Your task to perform on an android device: Add beats solo 3 to the cart on bestbuy.com Image 0: 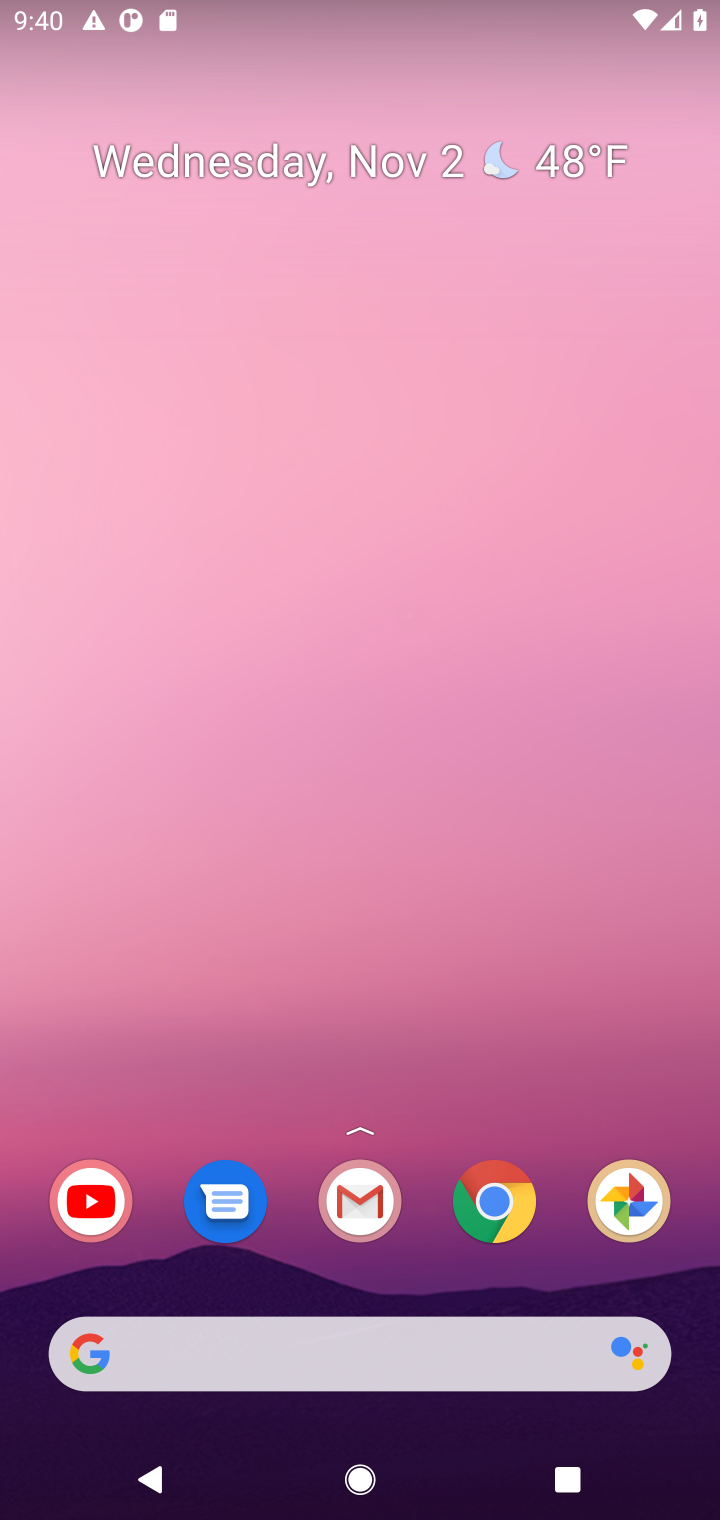
Step 0: drag from (418, 1250) to (548, 458)
Your task to perform on an android device: Add beats solo 3 to the cart on bestbuy.com Image 1: 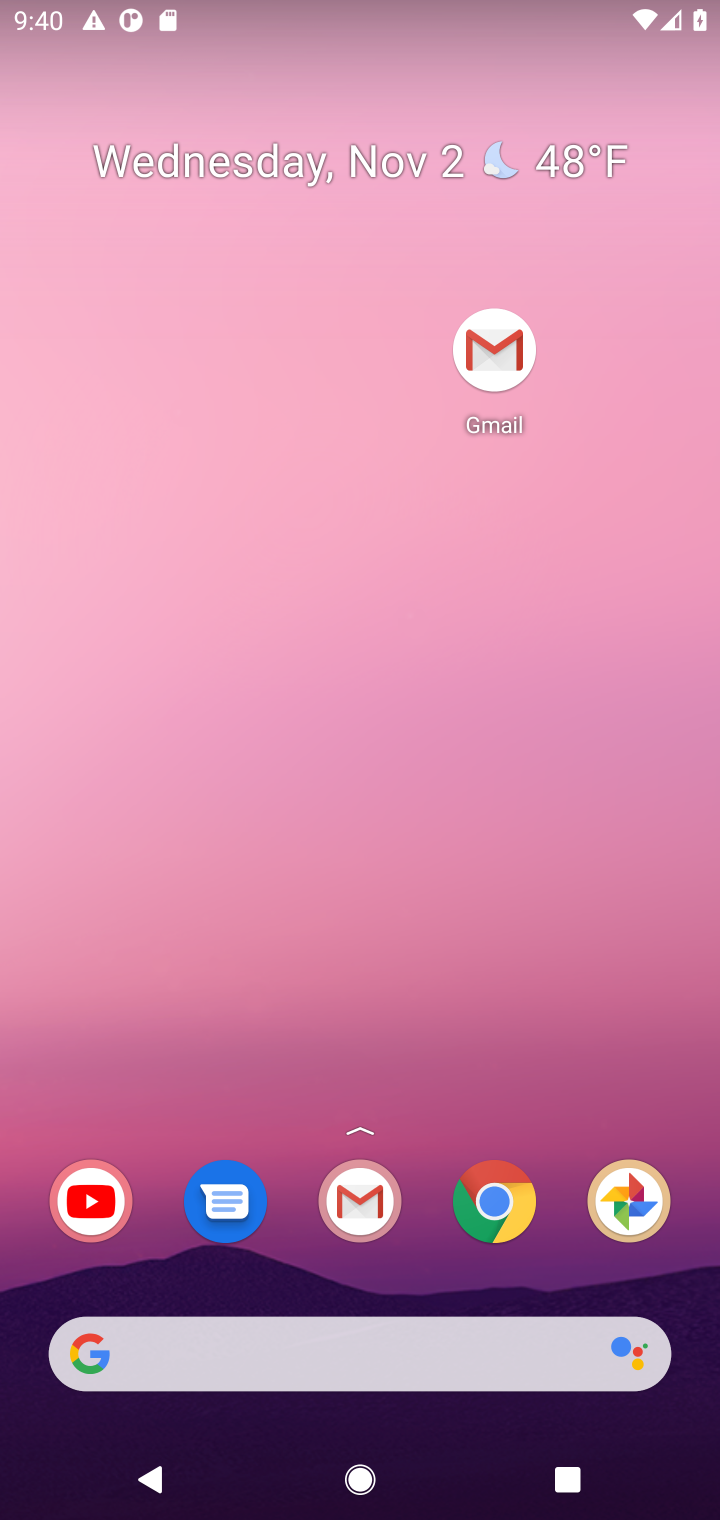
Step 1: drag from (423, 1252) to (350, 292)
Your task to perform on an android device: Add beats solo 3 to the cart on bestbuy.com Image 2: 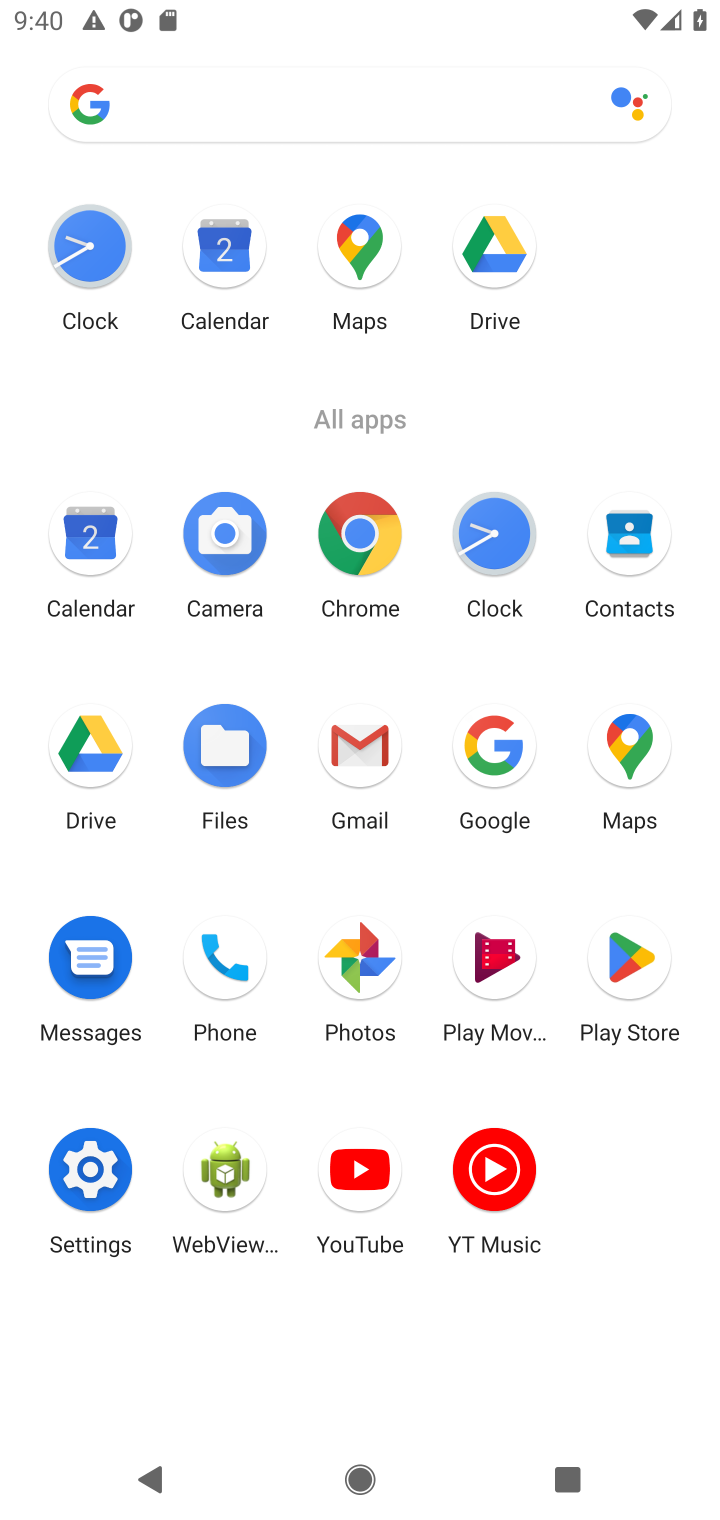
Step 2: click (360, 541)
Your task to perform on an android device: Add beats solo 3 to the cart on bestbuy.com Image 3: 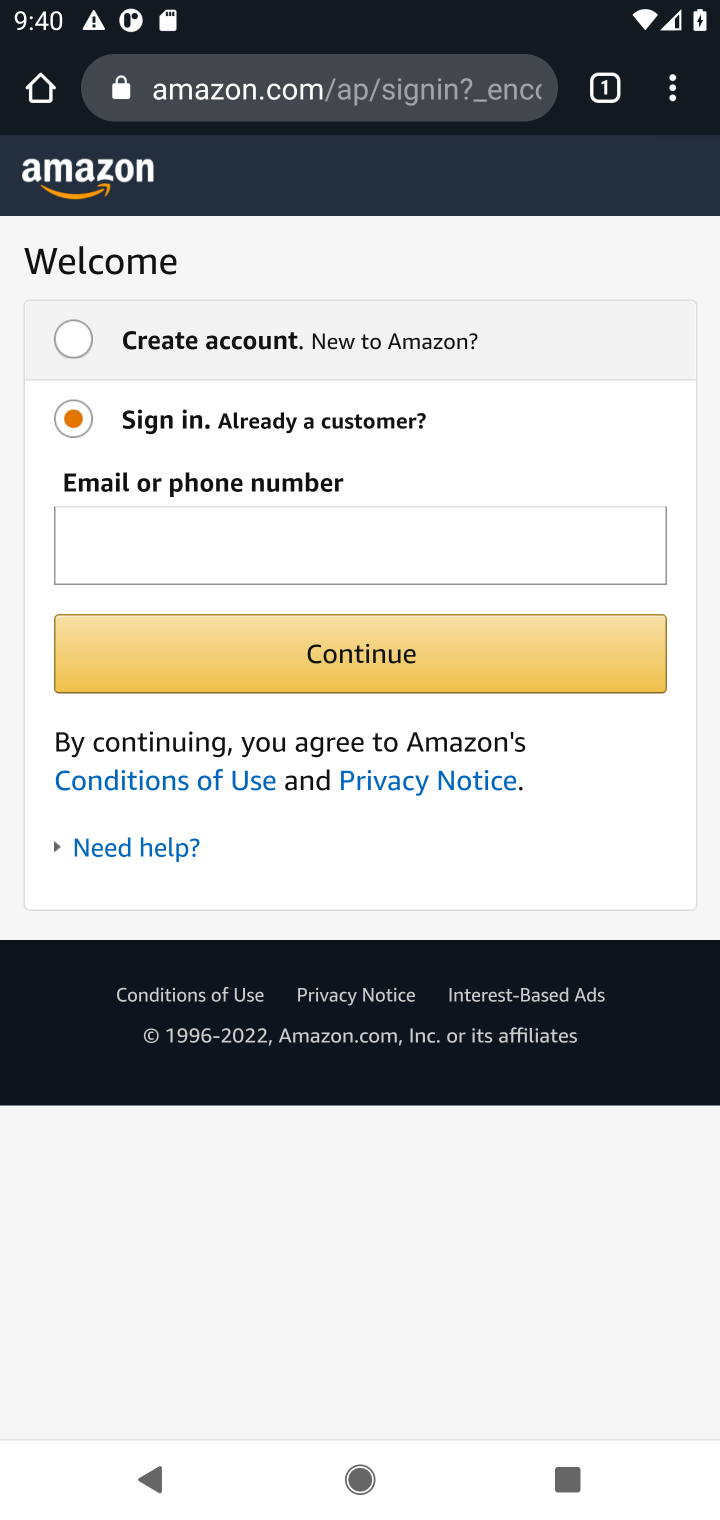
Step 3: click (314, 104)
Your task to perform on an android device: Add beats solo 3 to the cart on bestbuy.com Image 4: 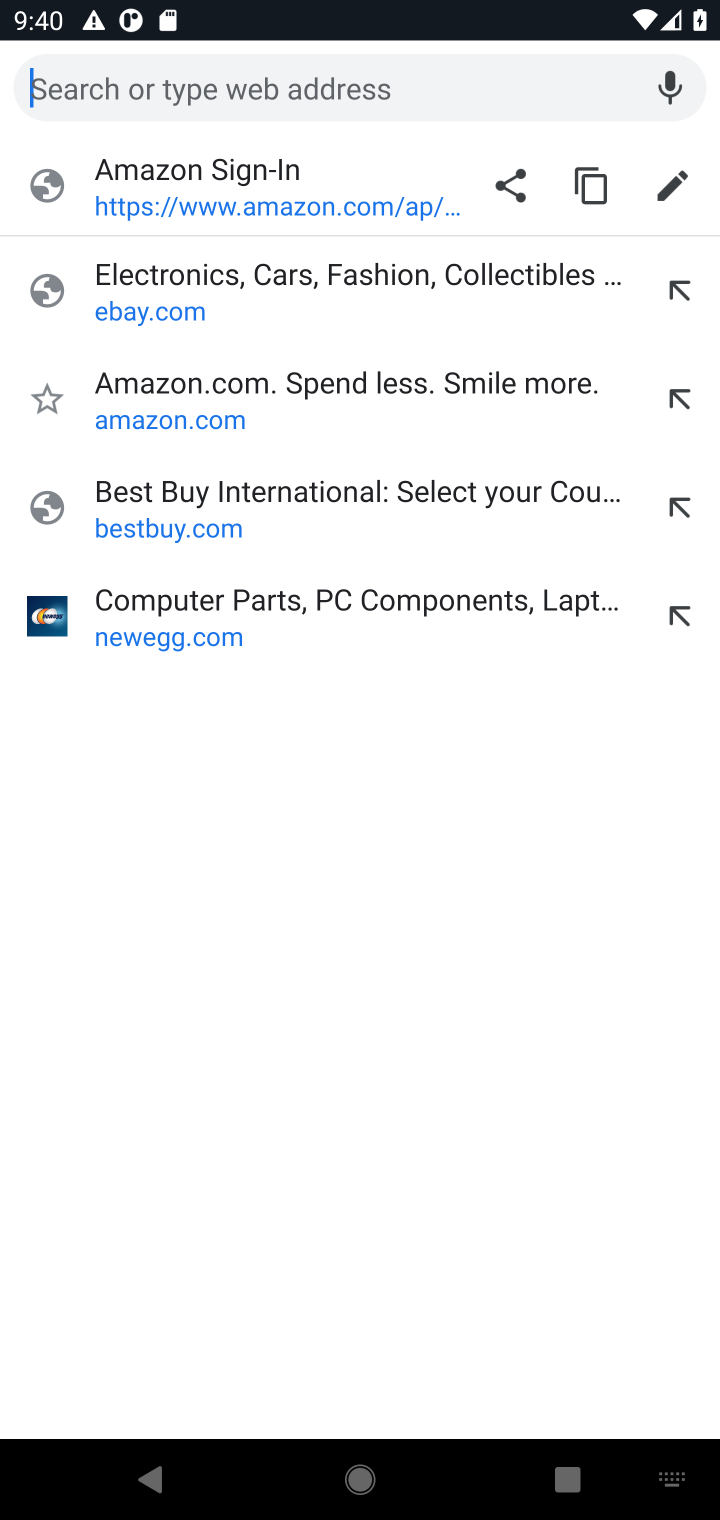
Step 4: type ""
Your task to perform on an android device: Add beats solo 3 to the cart on bestbuy.com Image 5: 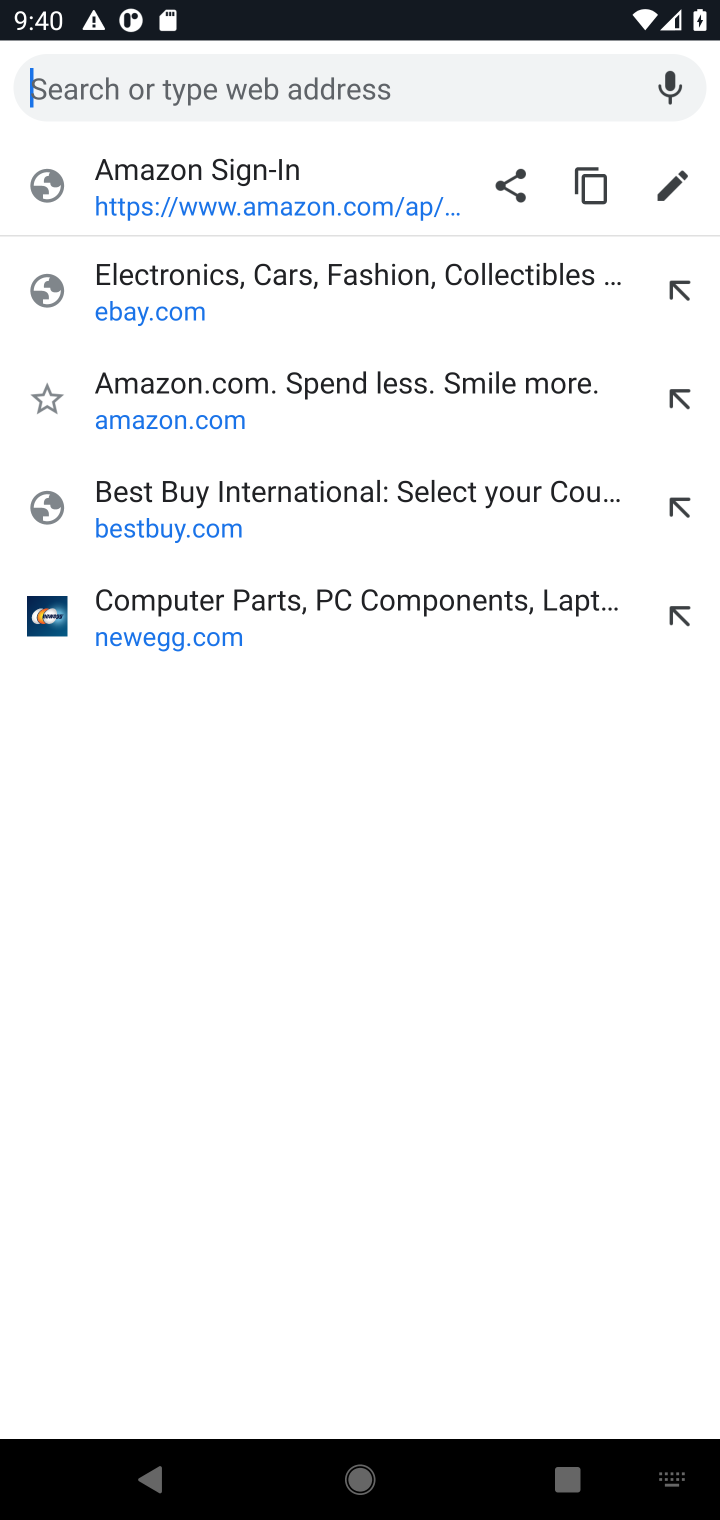
Step 5: type "bestbuy.com"
Your task to perform on an android device: Add beats solo 3 to the cart on bestbuy.com Image 6: 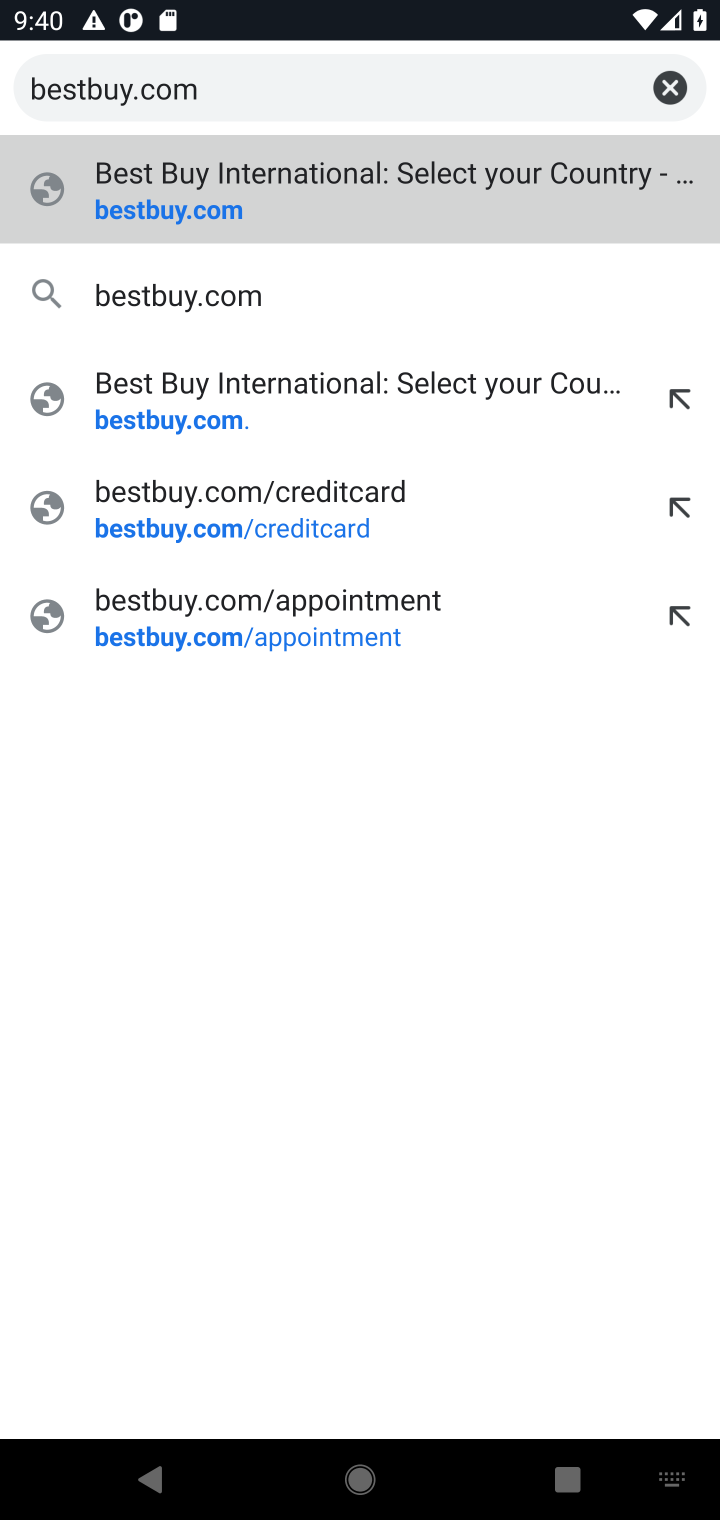
Step 6: press enter
Your task to perform on an android device: Add beats solo 3 to the cart on bestbuy.com Image 7: 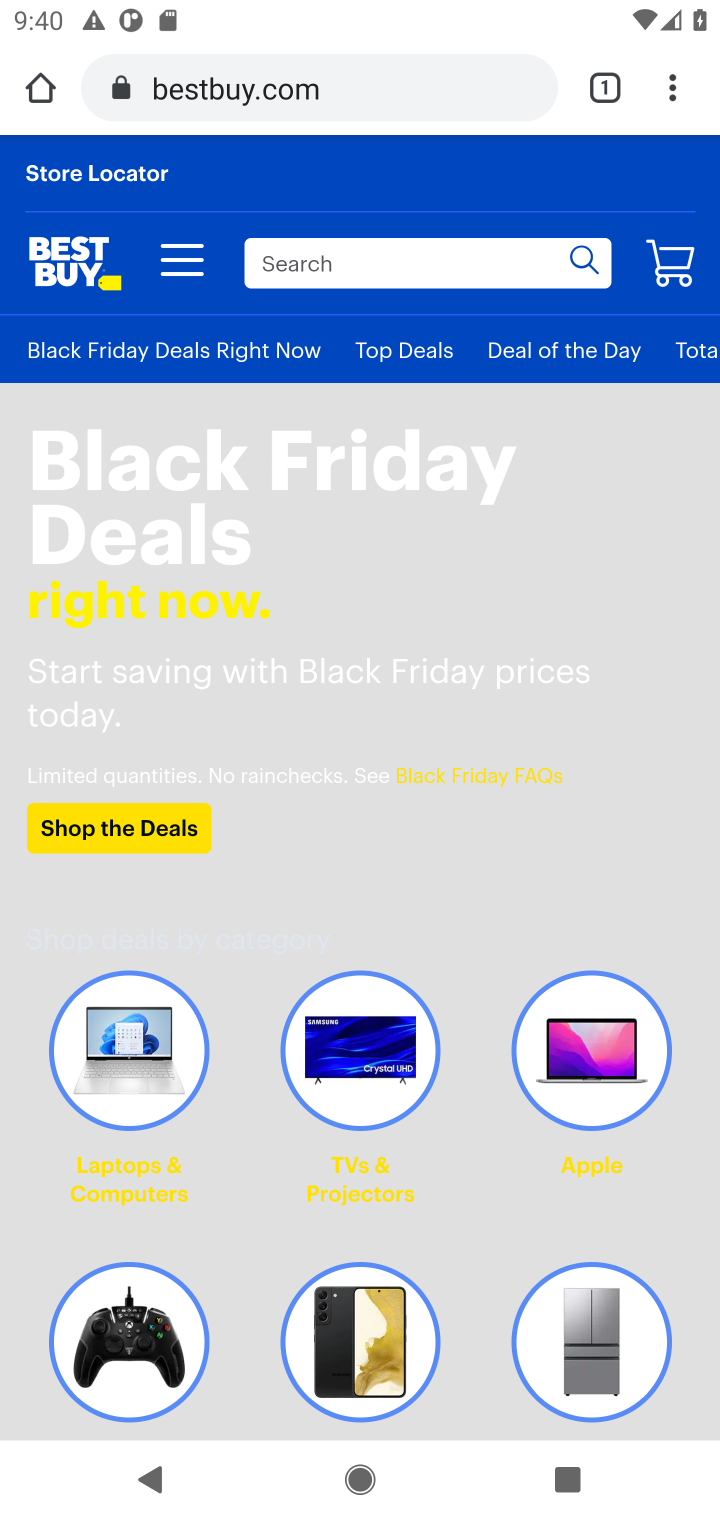
Step 7: click (507, 271)
Your task to perform on an android device: Add beats solo 3 to the cart on bestbuy.com Image 8: 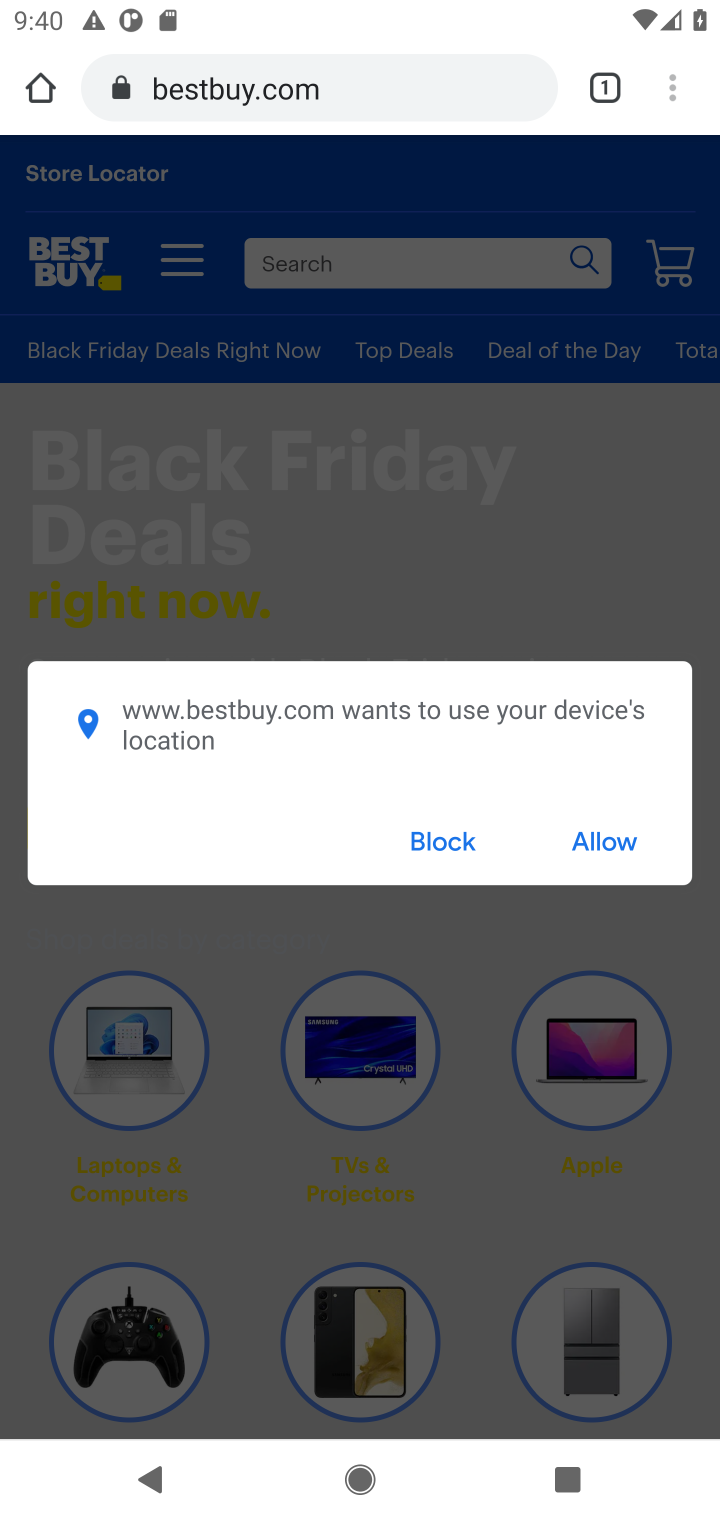
Step 8: click (409, 848)
Your task to perform on an android device: Add beats solo 3 to the cart on bestbuy.com Image 9: 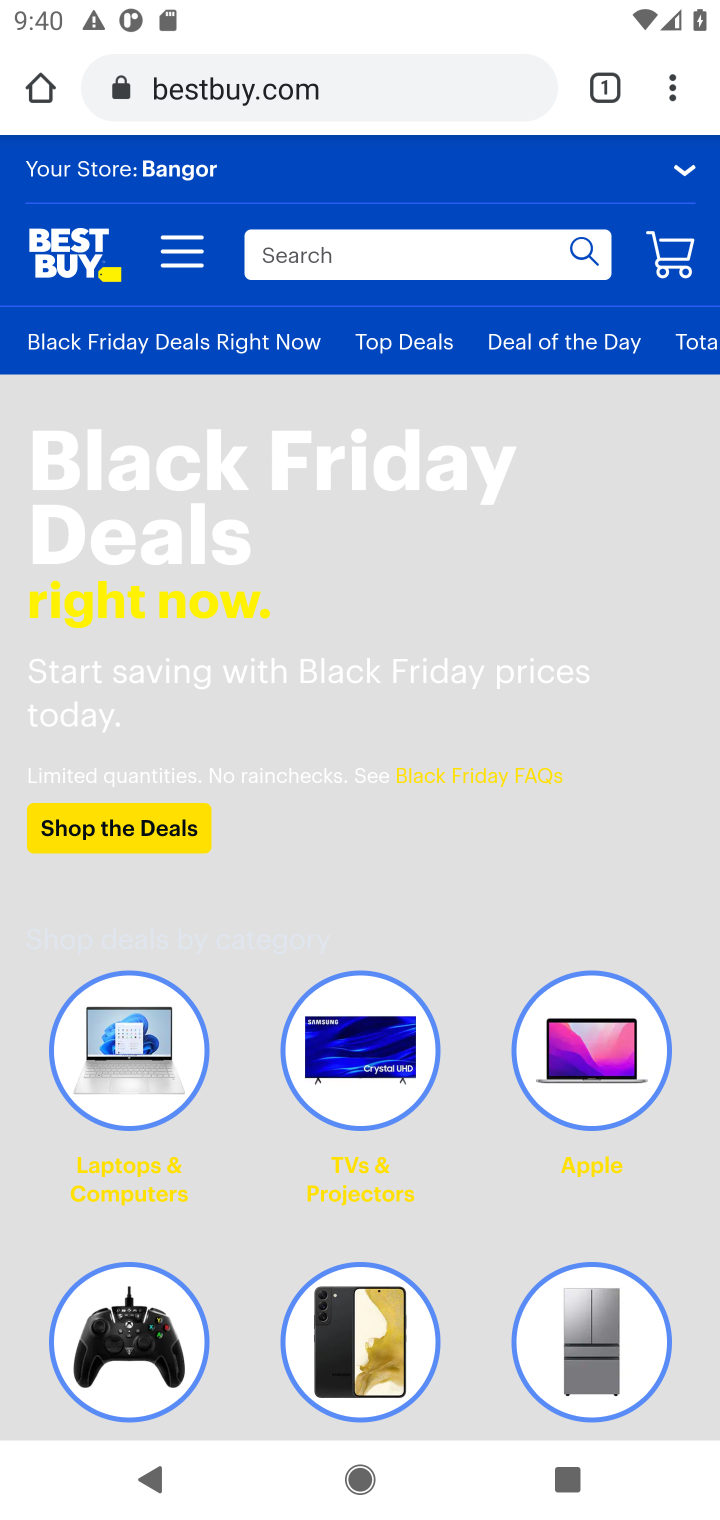
Step 9: click (361, 248)
Your task to perform on an android device: Add beats solo 3 to the cart on bestbuy.com Image 10: 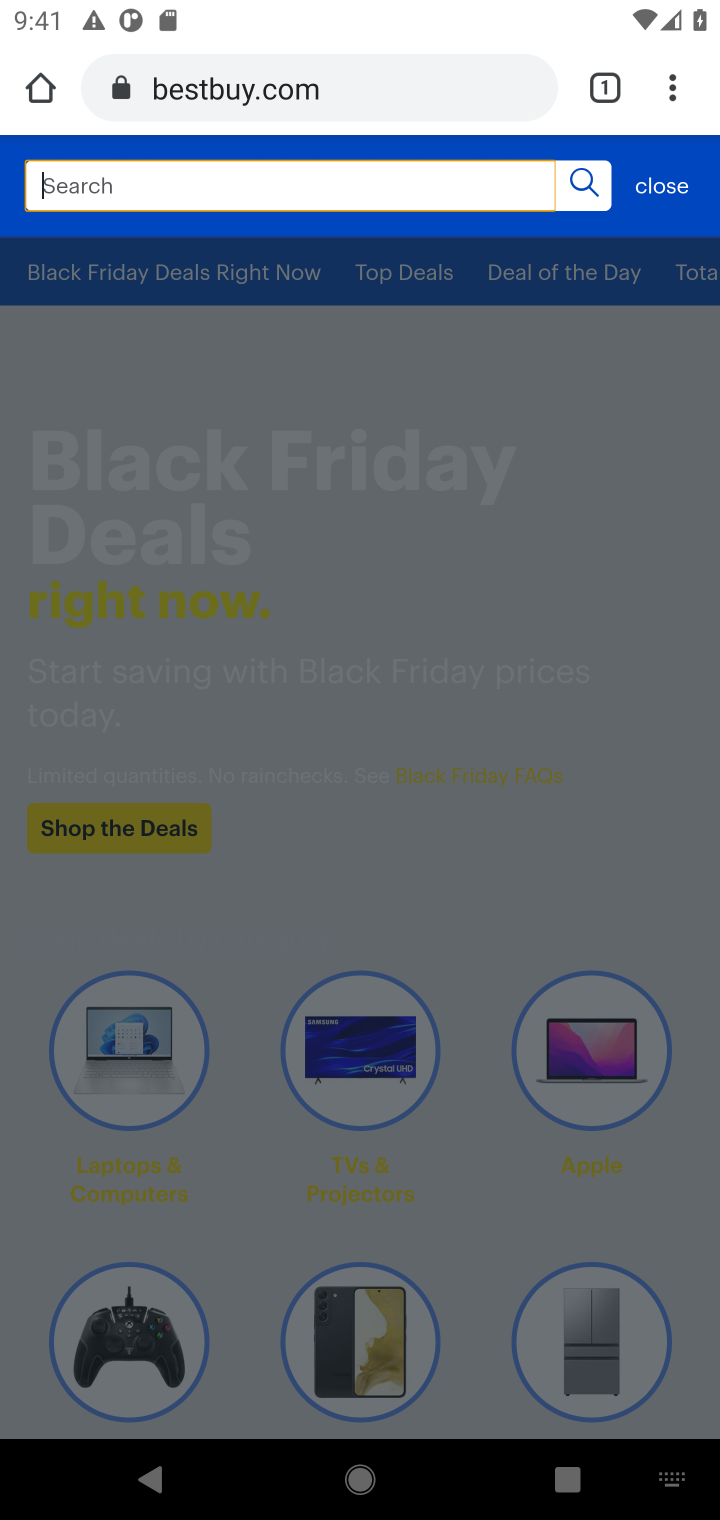
Step 10: type "beats  solo 3"
Your task to perform on an android device: Add beats solo 3 to the cart on bestbuy.com Image 11: 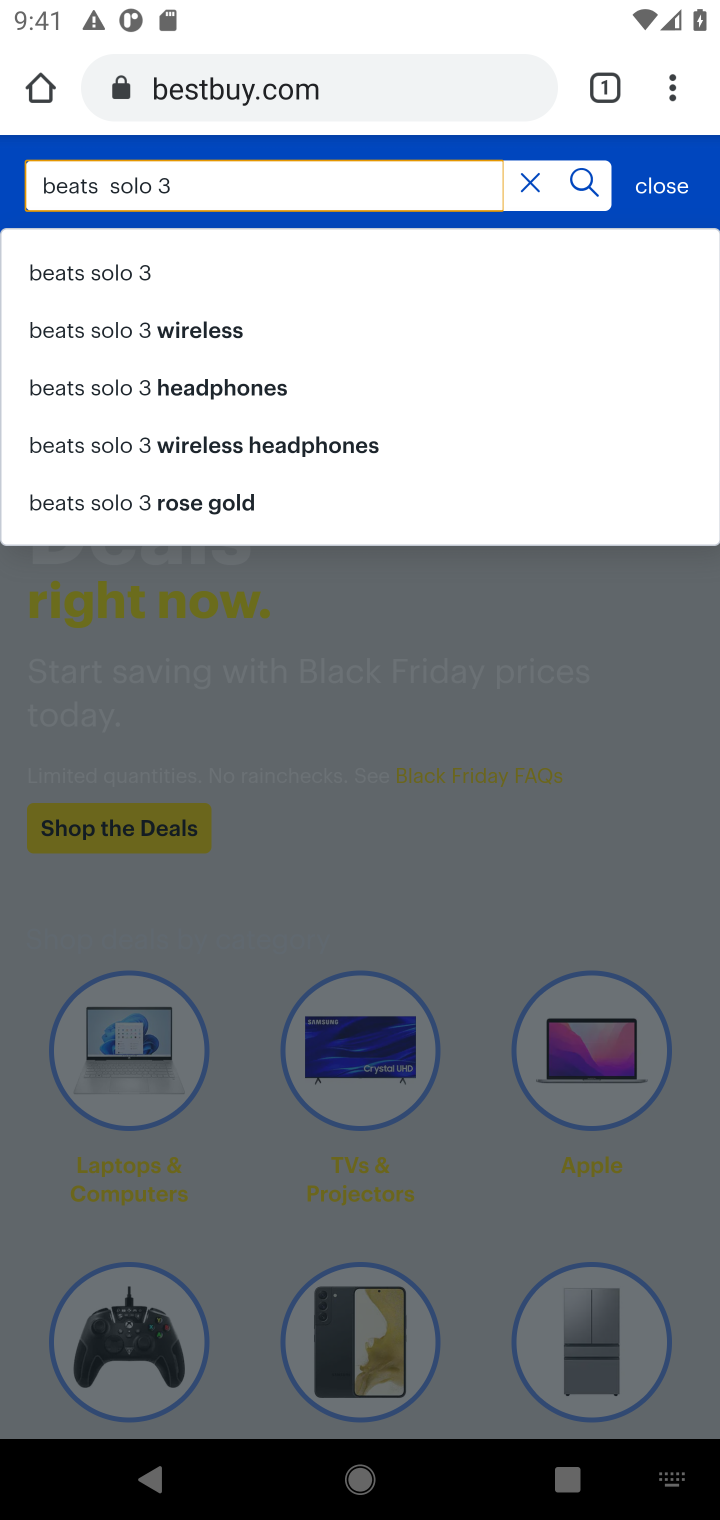
Step 11: press enter
Your task to perform on an android device: Add beats solo 3 to the cart on bestbuy.com Image 12: 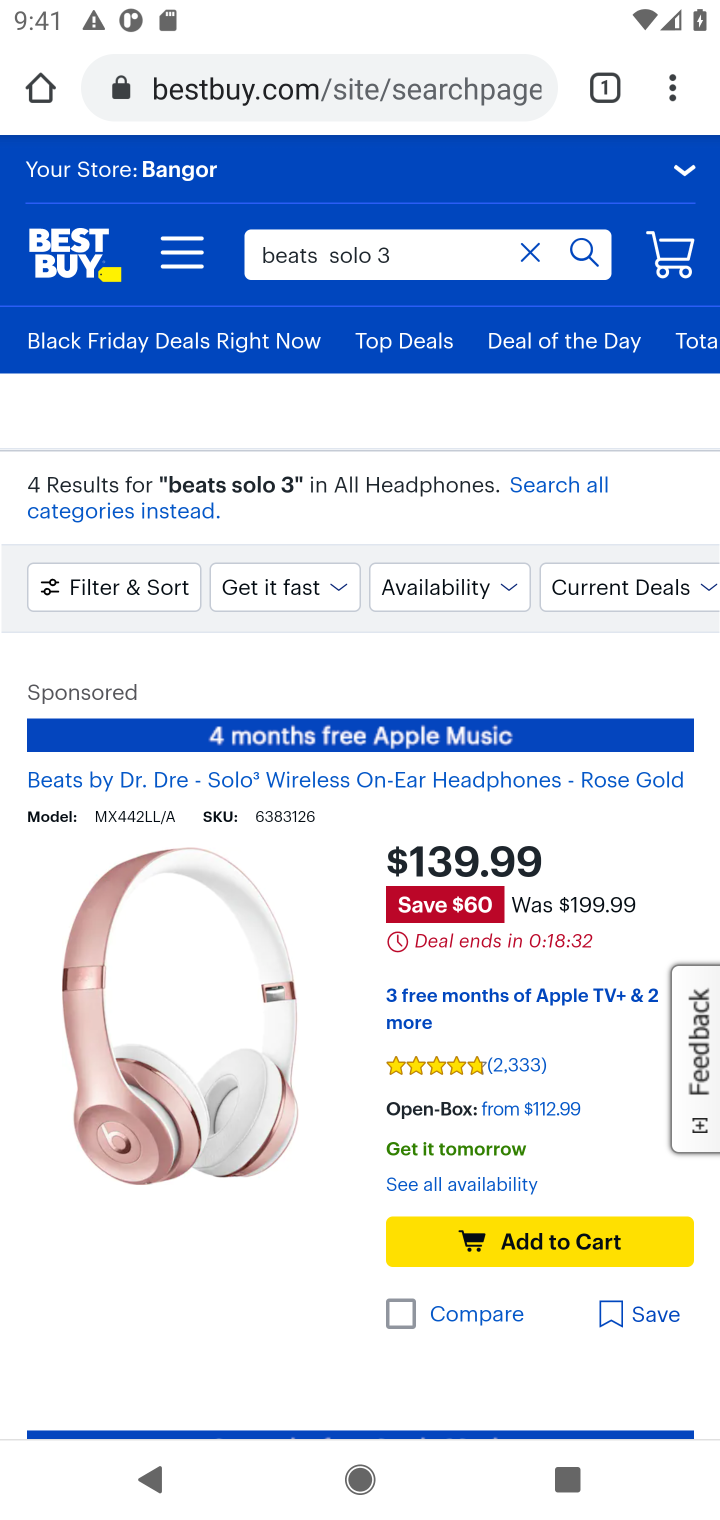
Step 12: click (533, 1245)
Your task to perform on an android device: Add beats solo 3 to the cart on bestbuy.com Image 13: 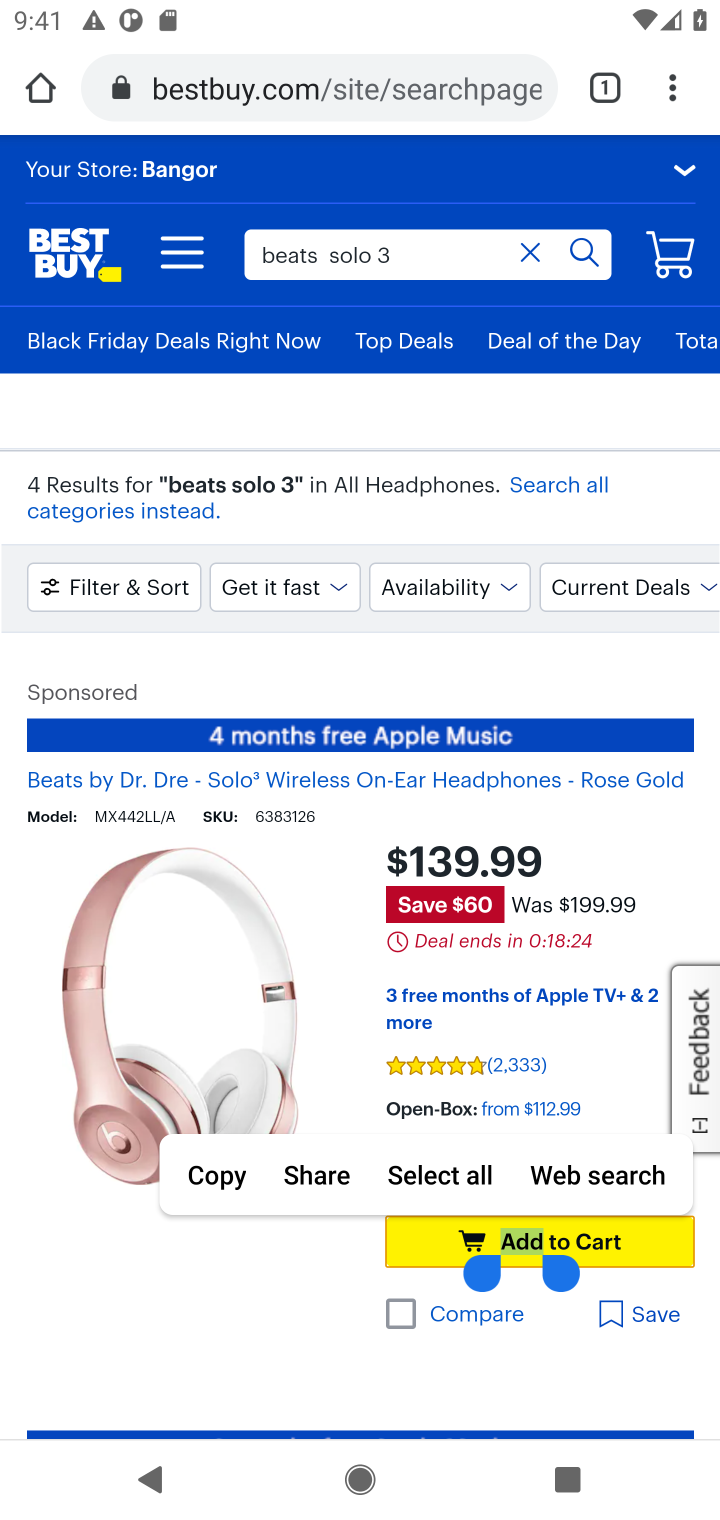
Step 13: drag from (222, 1248) to (260, 836)
Your task to perform on an android device: Add beats solo 3 to the cart on bestbuy.com Image 14: 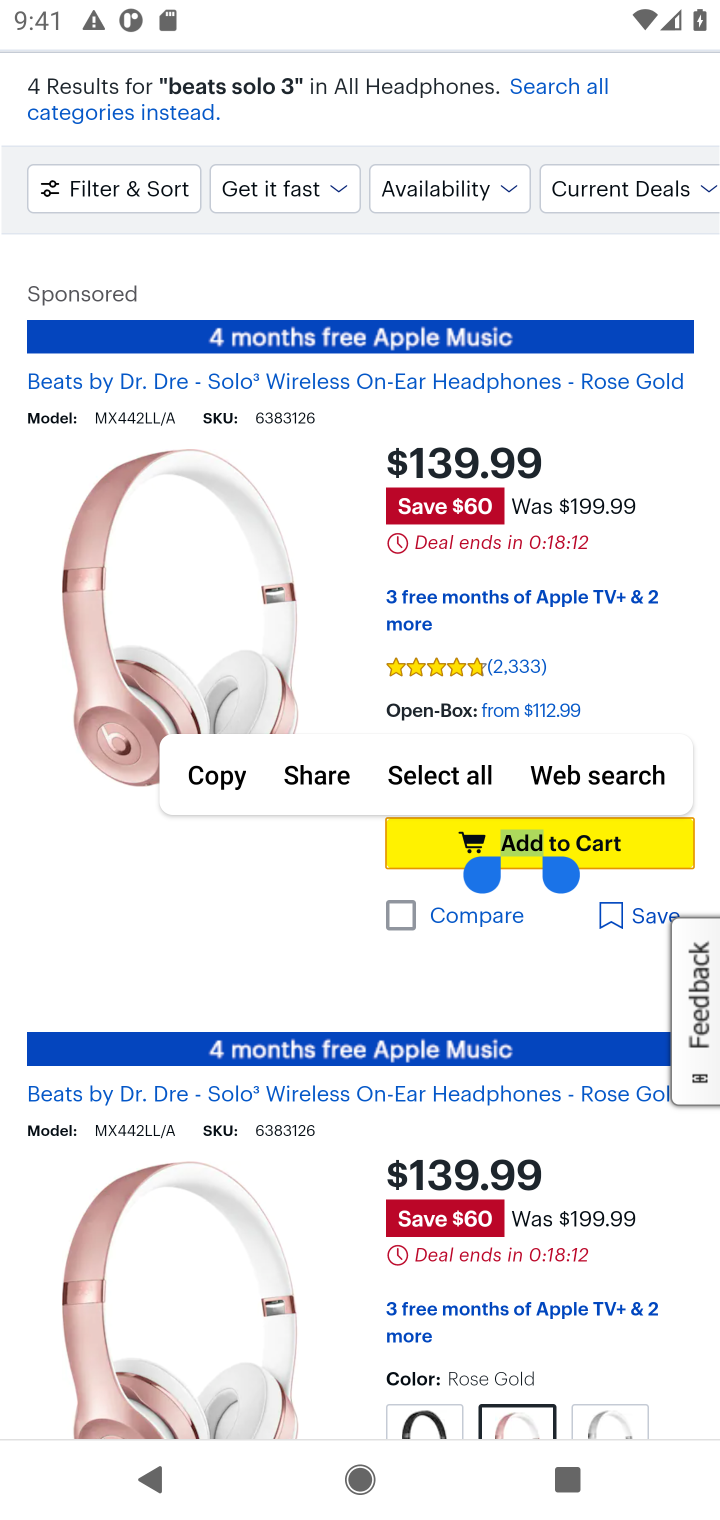
Step 14: drag from (484, 844) to (453, 338)
Your task to perform on an android device: Add beats solo 3 to the cart on bestbuy.com Image 15: 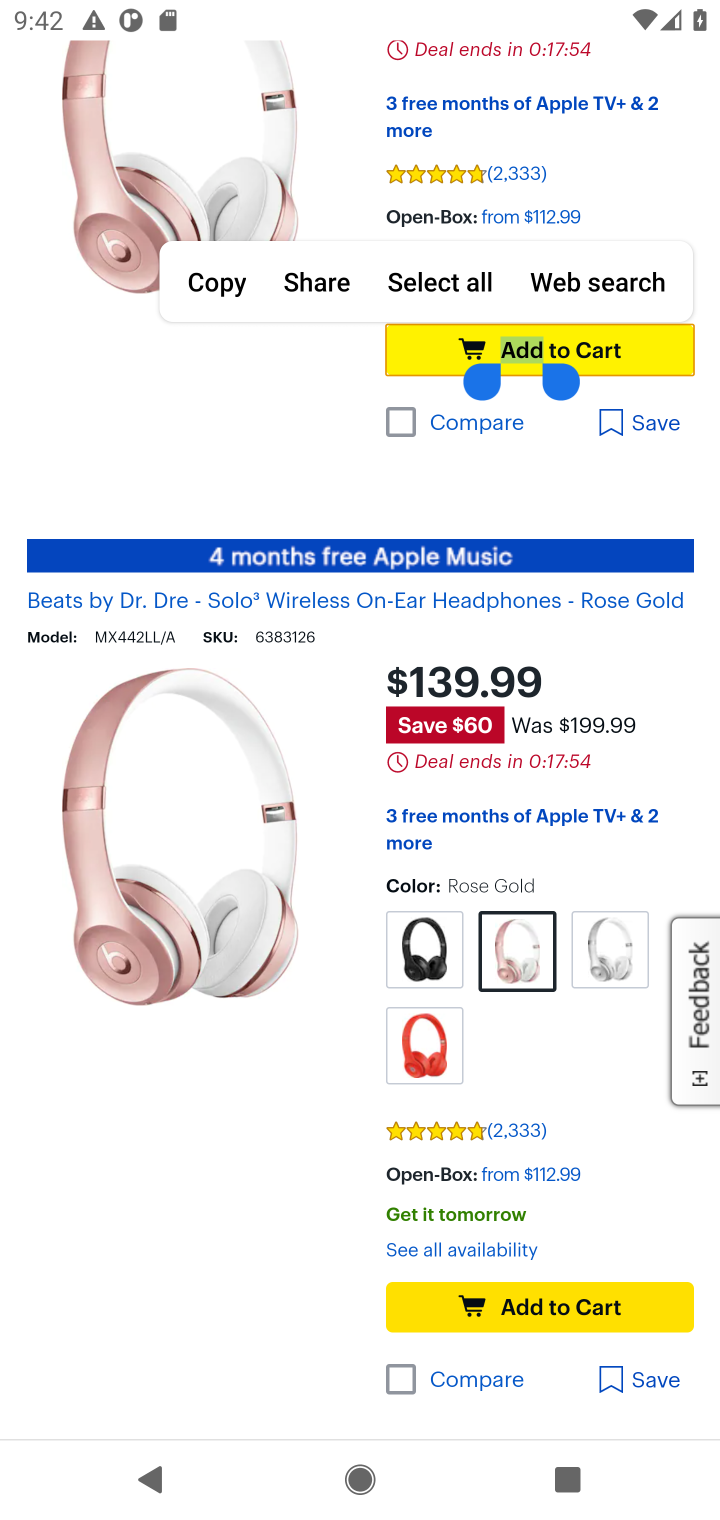
Step 15: drag from (344, 394) to (251, 1491)
Your task to perform on an android device: Add beats solo 3 to the cart on bestbuy.com Image 16: 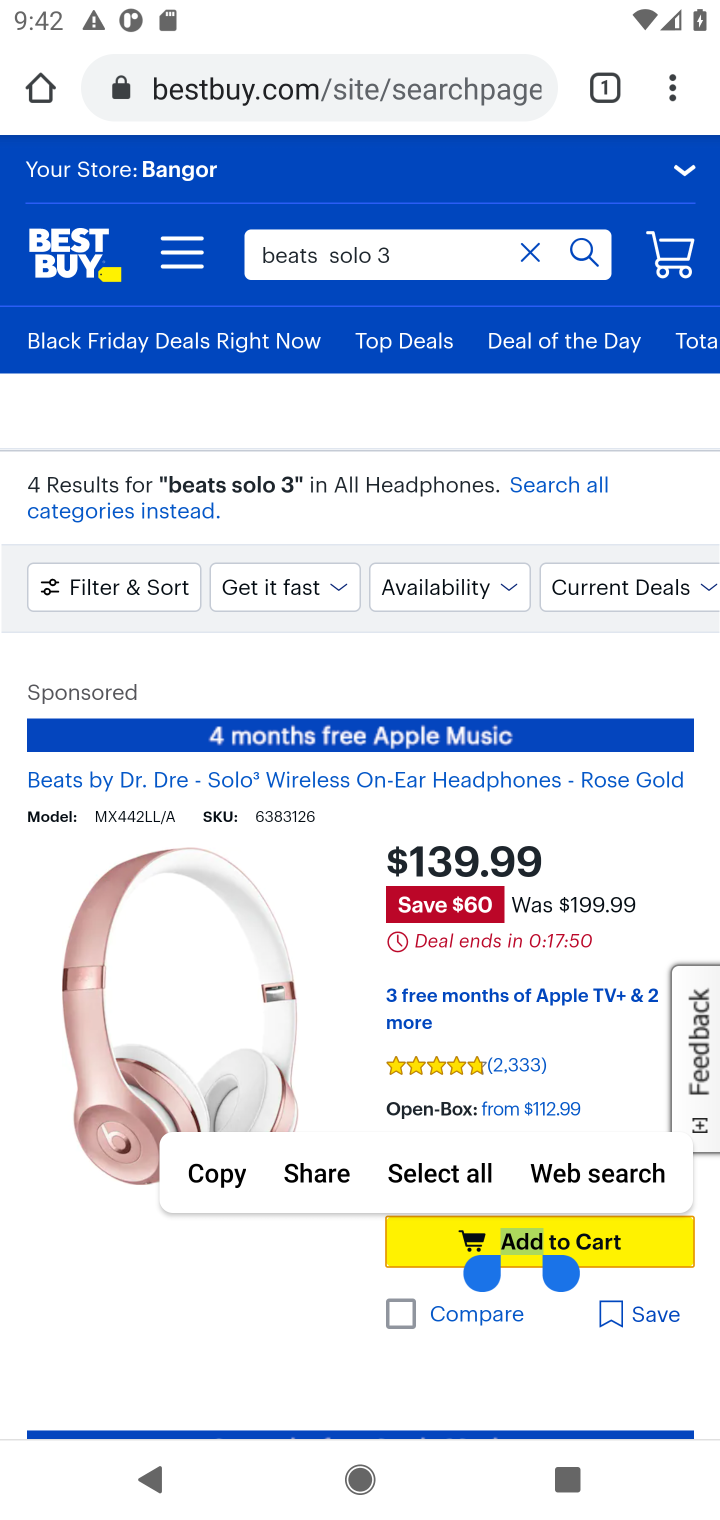
Step 16: drag from (468, 335) to (488, 792)
Your task to perform on an android device: Add beats solo 3 to the cart on bestbuy.com Image 17: 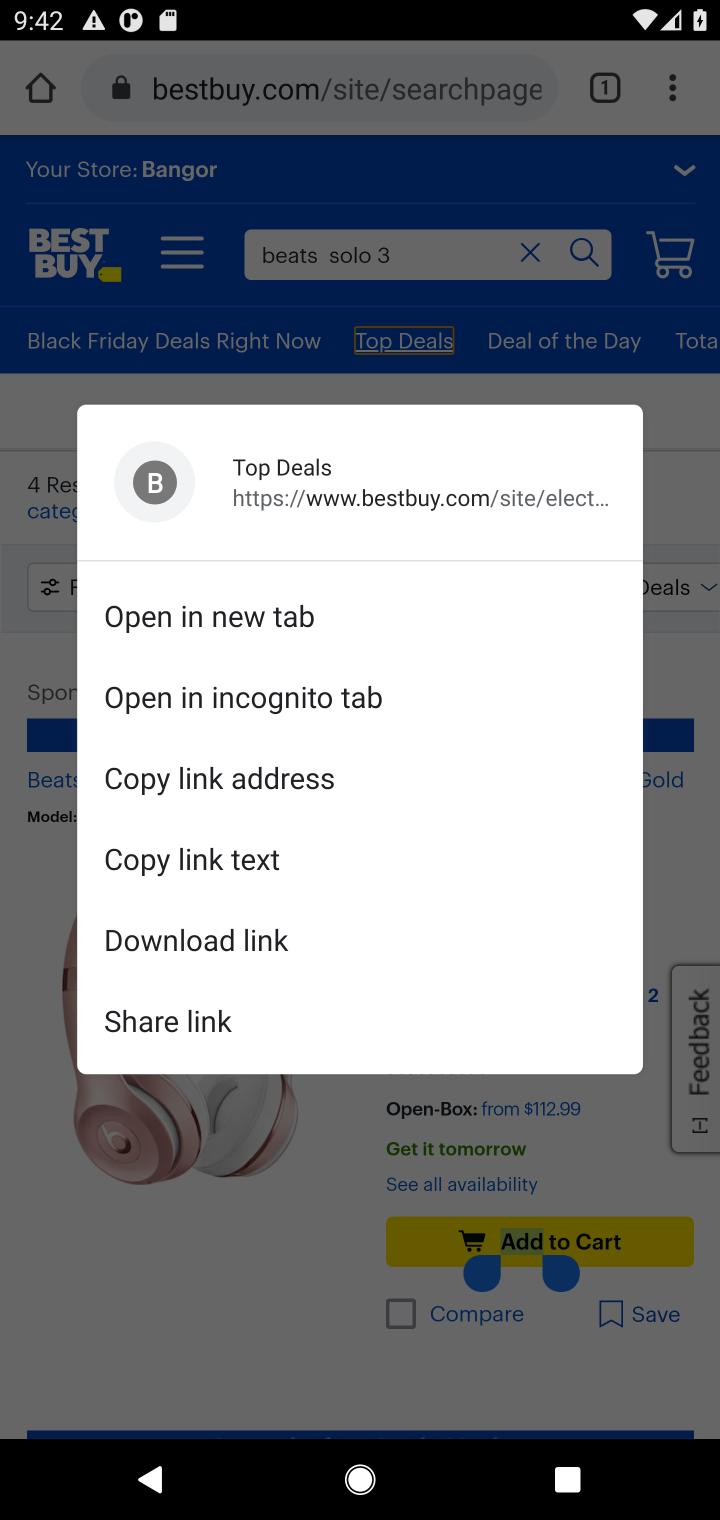
Step 17: click (48, 709)
Your task to perform on an android device: Add beats solo 3 to the cart on bestbuy.com Image 18: 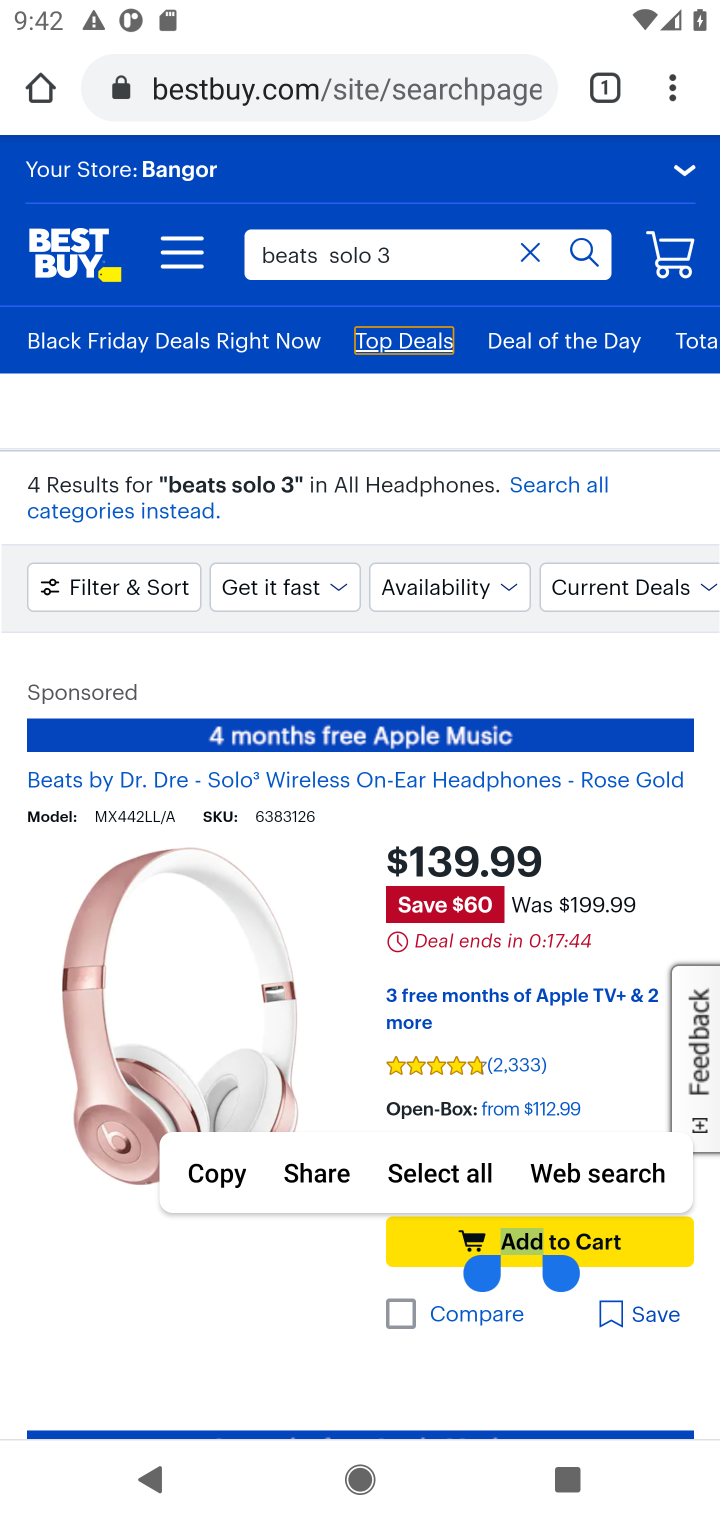
Step 18: task complete